Your task to perform on an android device: check storage Image 0: 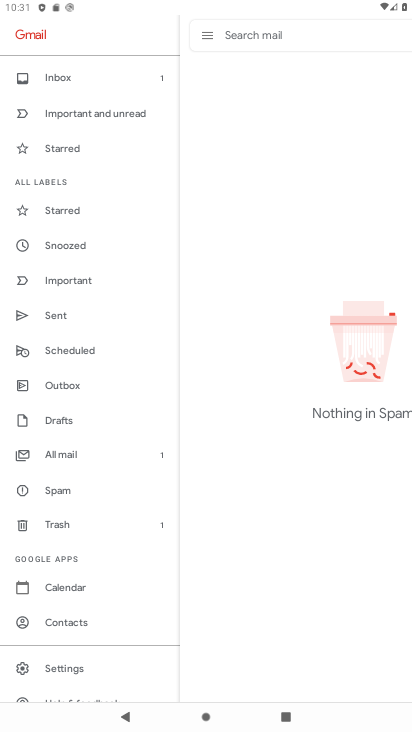
Step 0: press home button
Your task to perform on an android device: check storage Image 1: 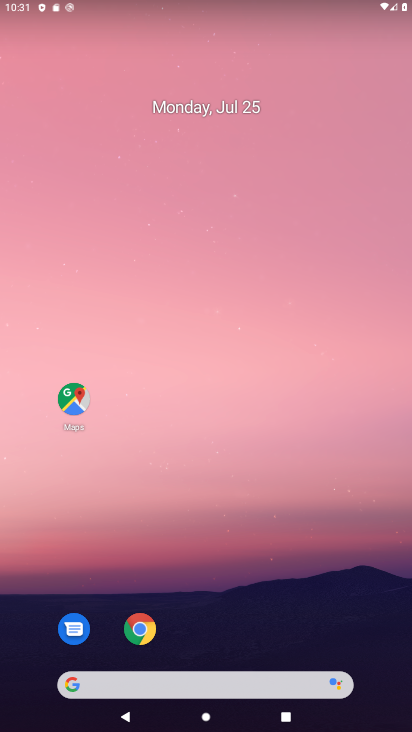
Step 1: drag from (222, 656) to (220, 43)
Your task to perform on an android device: check storage Image 2: 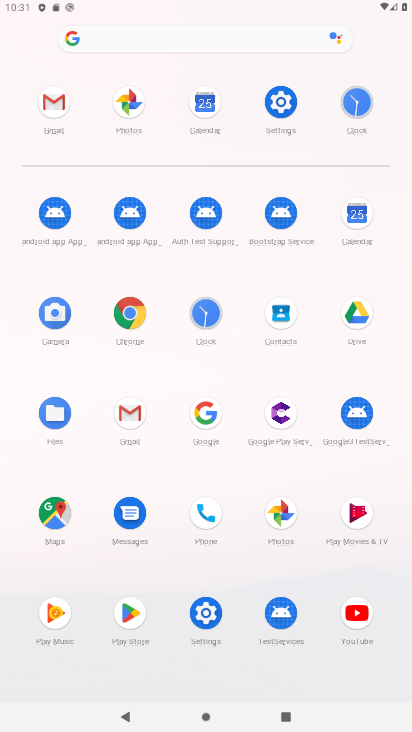
Step 2: click (280, 111)
Your task to perform on an android device: check storage Image 3: 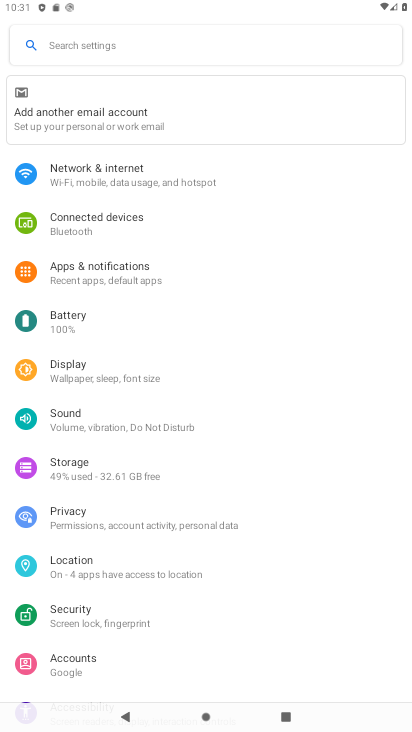
Step 3: click (75, 476)
Your task to perform on an android device: check storage Image 4: 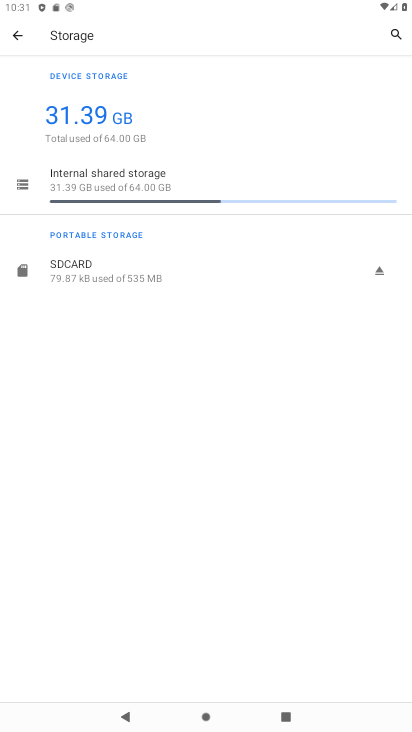
Step 4: task complete